Your task to perform on an android device: Open Youtube and go to the subscriptions tab Image 0: 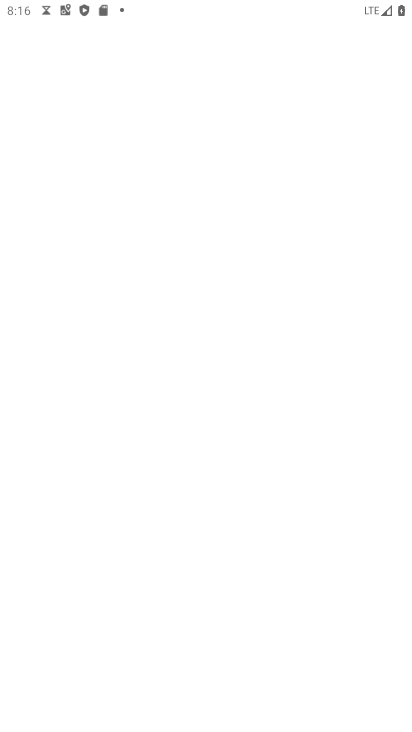
Step 0: press home button
Your task to perform on an android device: Open Youtube and go to the subscriptions tab Image 1: 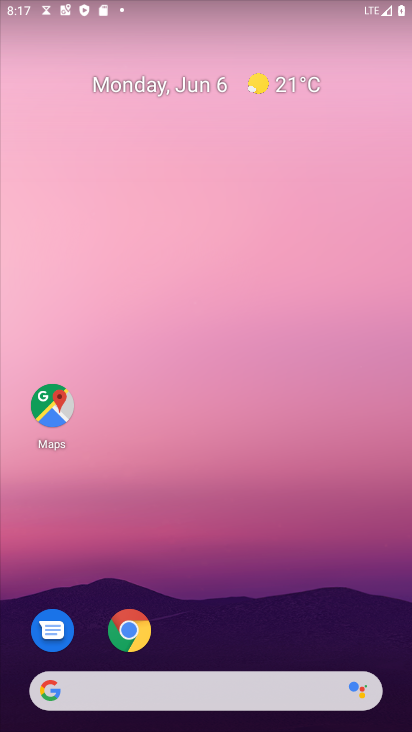
Step 1: drag from (276, 620) to (310, 29)
Your task to perform on an android device: Open Youtube and go to the subscriptions tab Image 2: 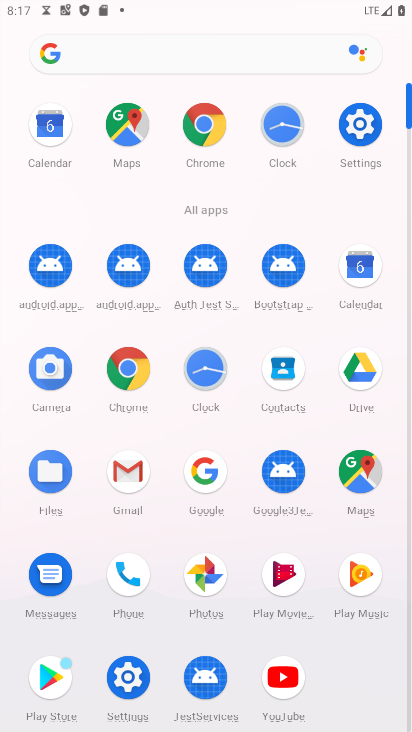
Step 2: click (282, 674)
Your task to perform on an android device: Open Youtube and go to the subscriptions tab Image 3: 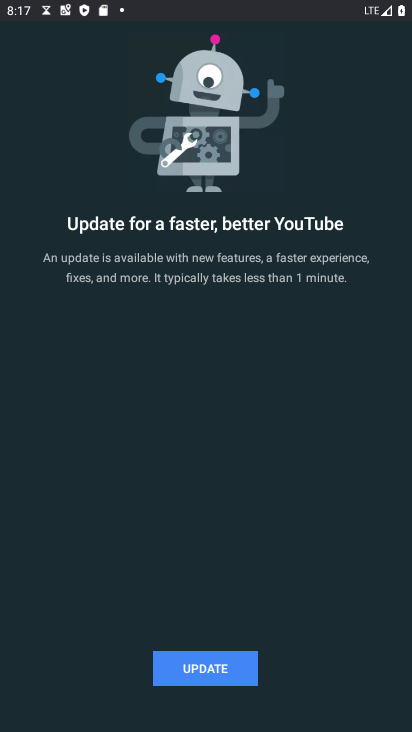
Step 3: click (217, 673)
Your task to perform on an android device: Open Youtube and go to the subscriptions tab Image 4: 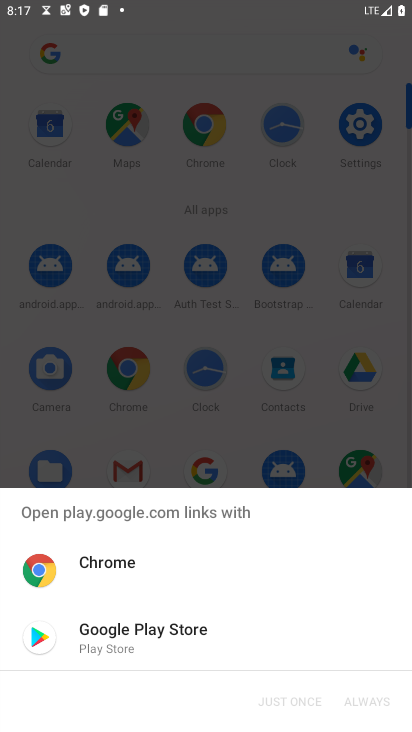
Step 4: click (184, 627)
Your task to perform on an android device: Open Youtube and go to the subscriptions tab Image 5: 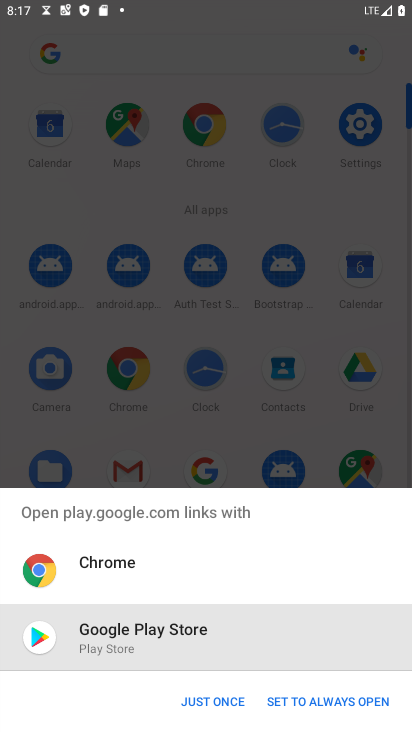
Step 5: click (209, 701)
Your task to perform on an android device: Open Youtube and go to the subscriptions tab Image 6: 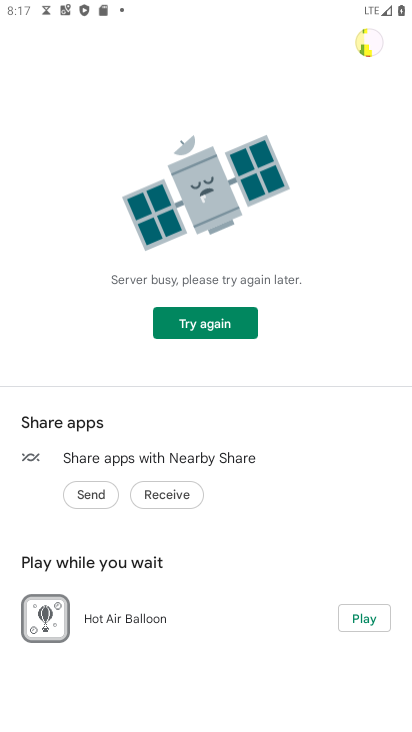
Step 6: click (213, 321)
Your task to perform on an android device: Open Youtube and go to the subscriptions tab Image 7: 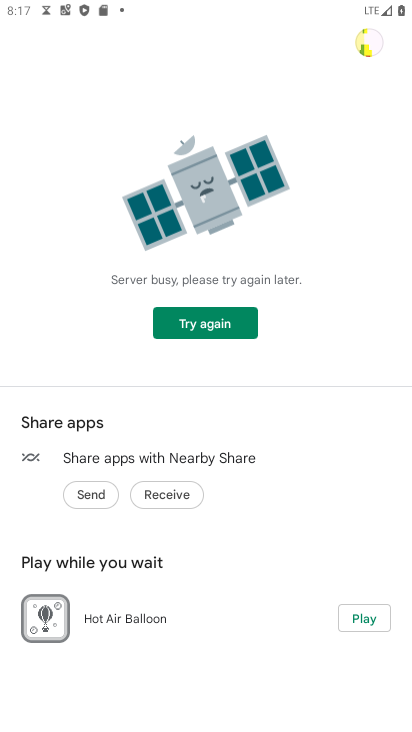
Step 7: task complete